Your task to perform on an android device: check storage Image 0: 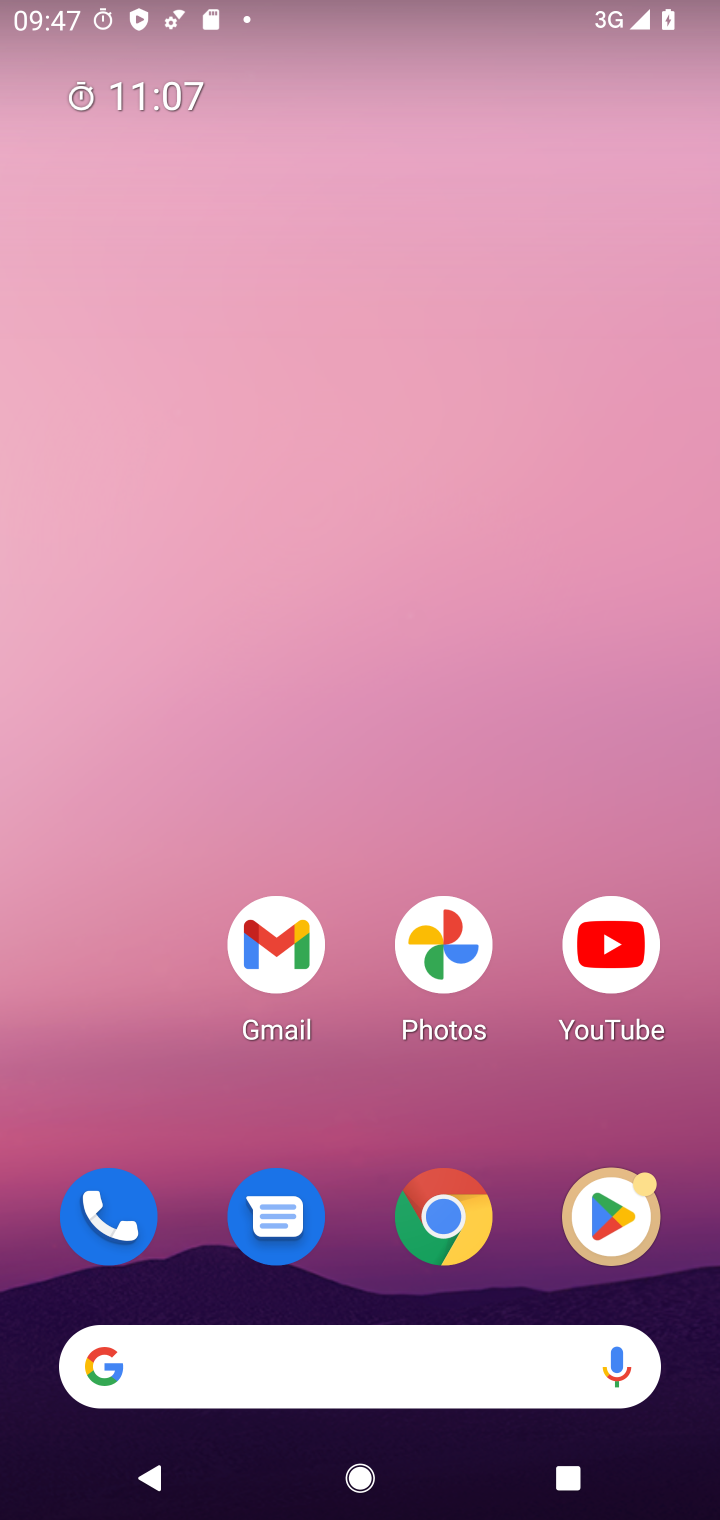
Step 0: drag from (361, 1141) to (296, 117)
Your task to perform on an android device: check storage Image 1: 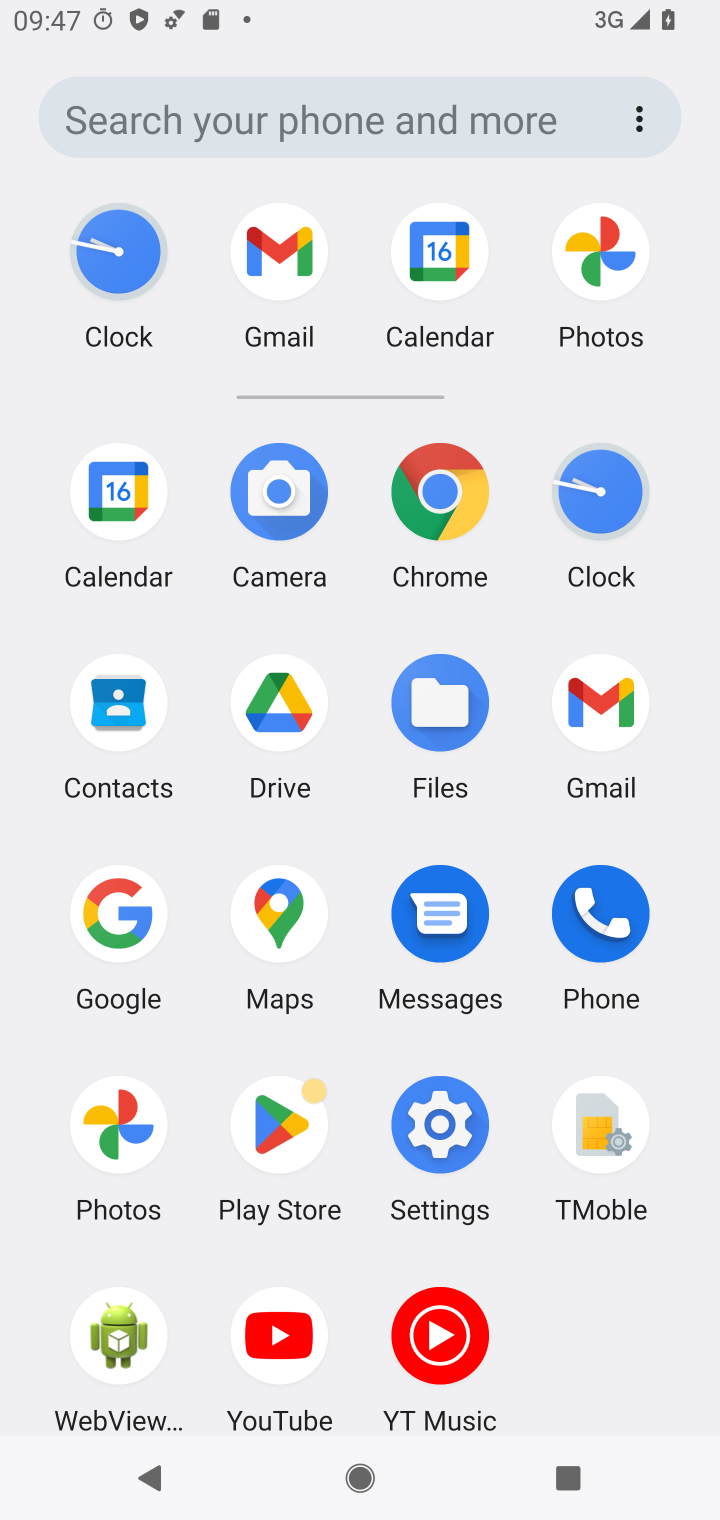
Step 1: click (447, 1126)
Your task to perform on an android device: check storage Image 2: 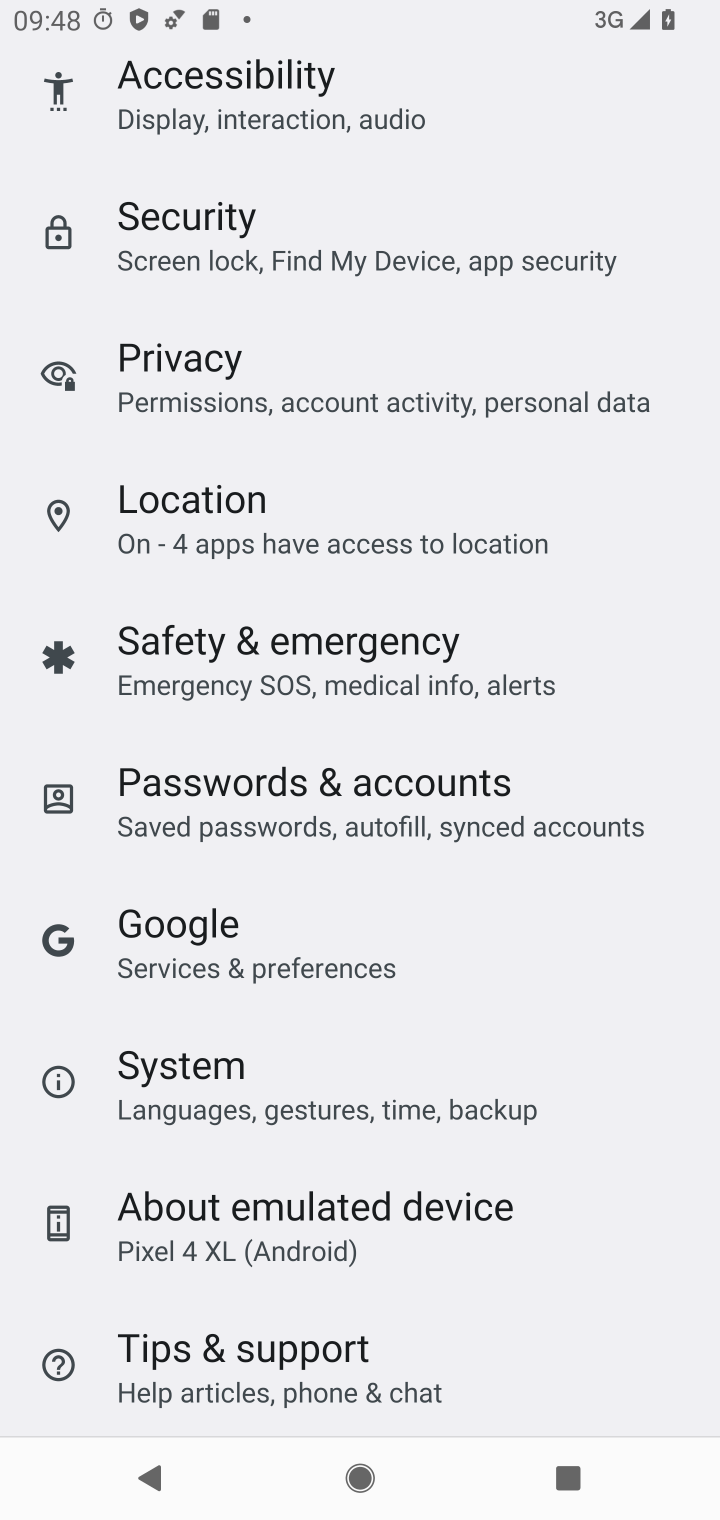
Step 2: drag from (274, 300) to (274, 1105)
Your task to perform on an android device: check storage Image 3: 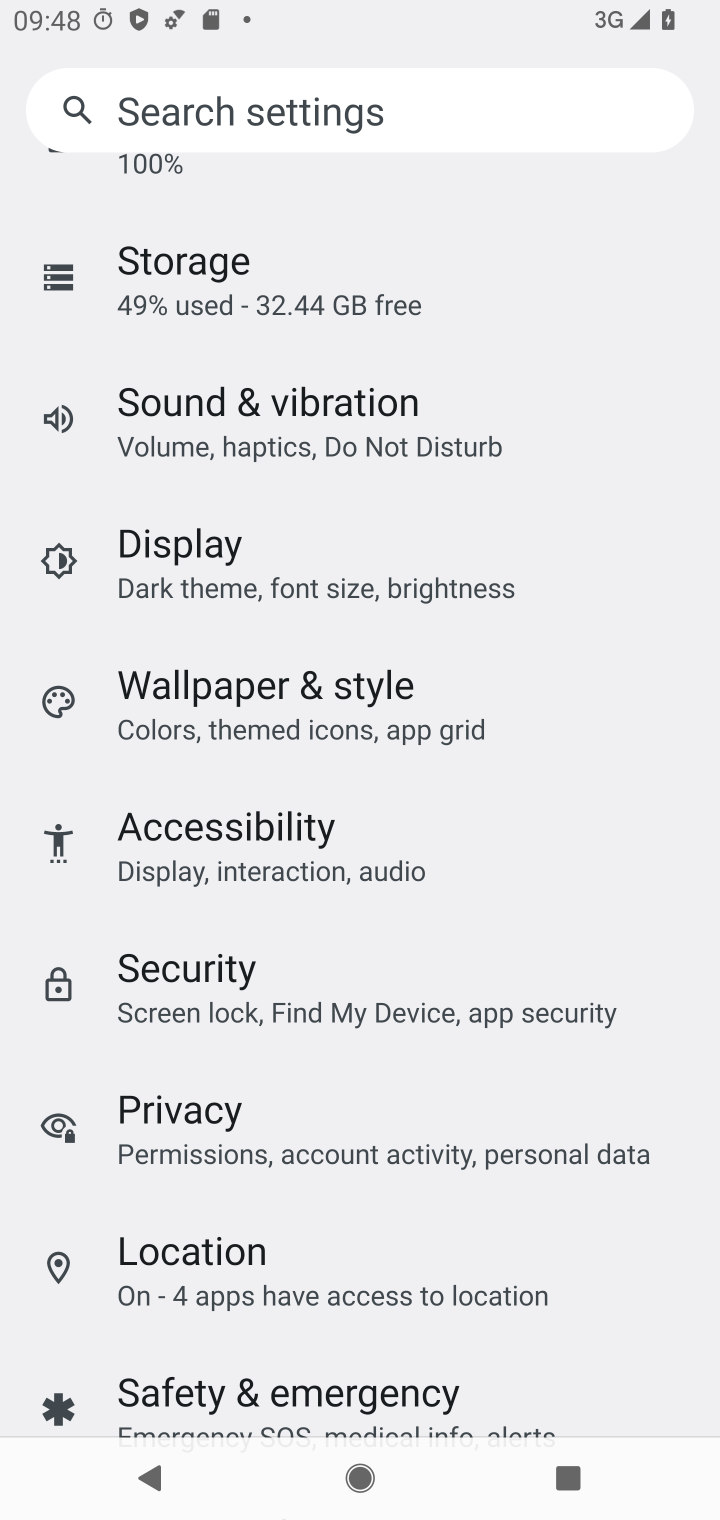
Step 3: drag from (277, 401) to (320, 1110)
Your task to perform on an android device: check storage Image 4: 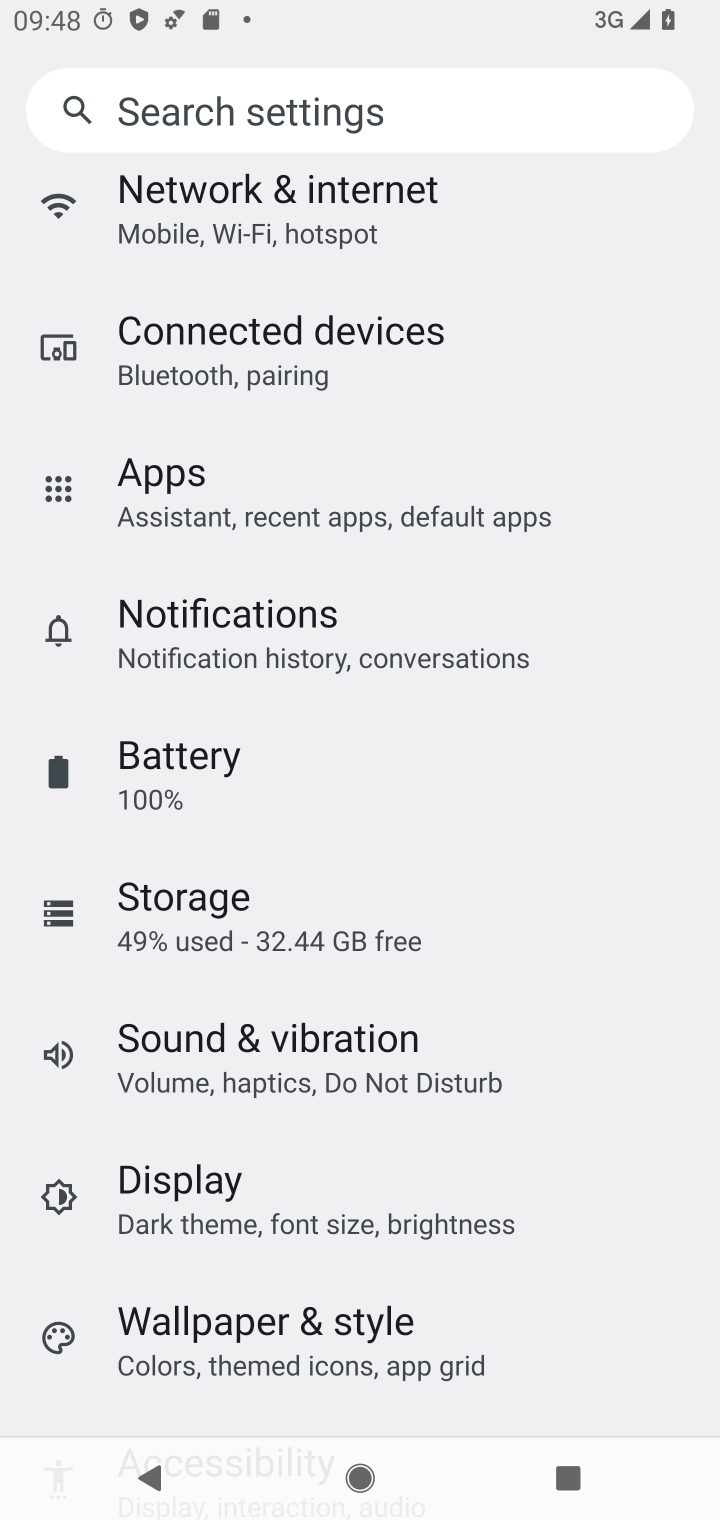
Step 4: click (190, 918)
Your task to perform on an android device: check storage Image 5: 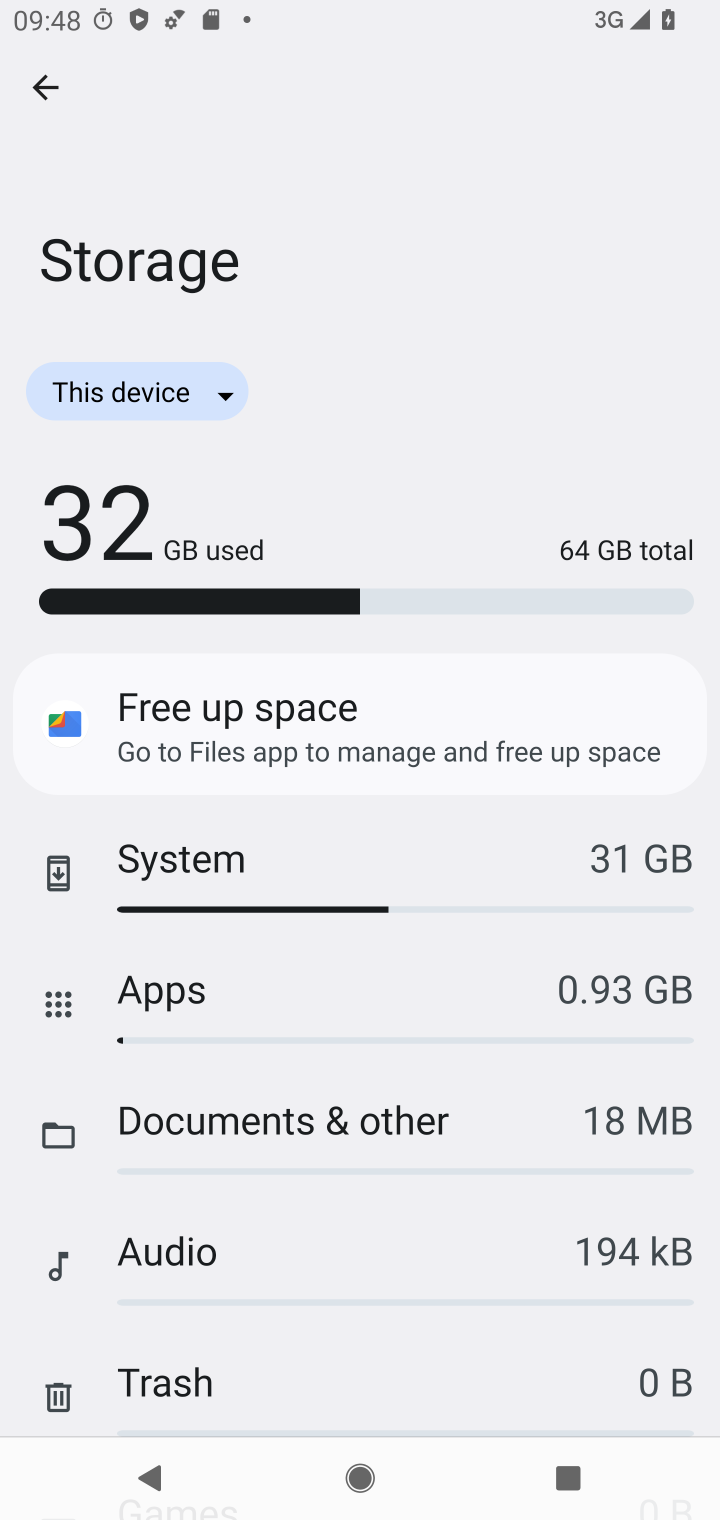
Step 5: task complete